Your task to perform on an android device: Is it going to rain today? Image 0: 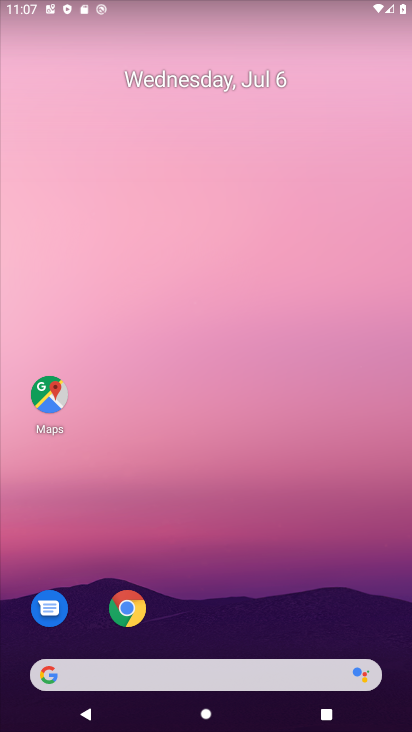
Step 0: drag from (234, 644) to (81, 99)
Your task to perform on an android device: Is it going to rain today? Image 1: 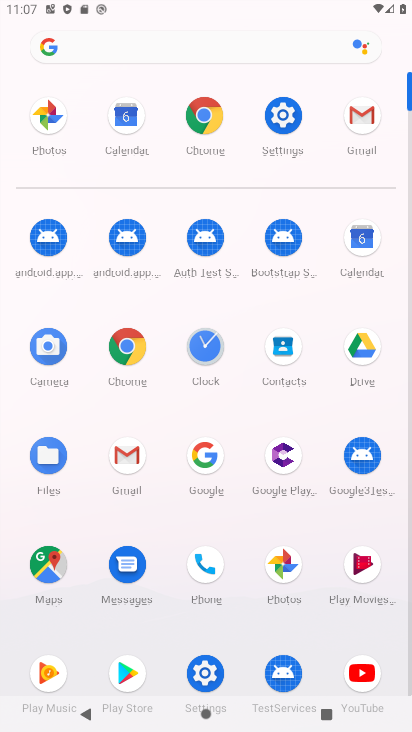
Step 1: click (200, 462)
Your task to perform on an android device: Is it going to rain today? Image 2: 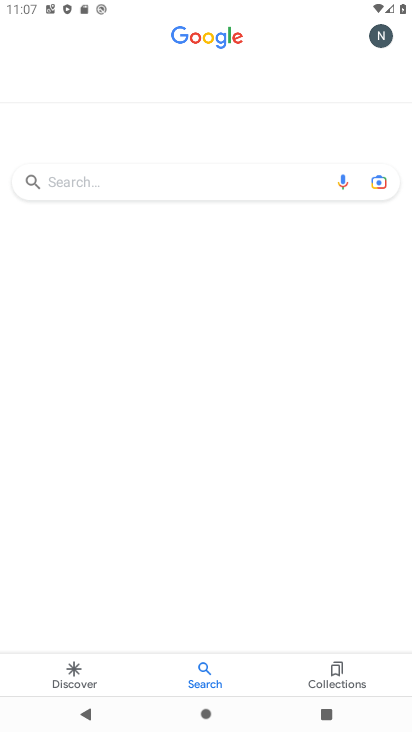
Step 2: click (100, 198)
Your task to perform on an android device: Is it going to rain today? Image 3: 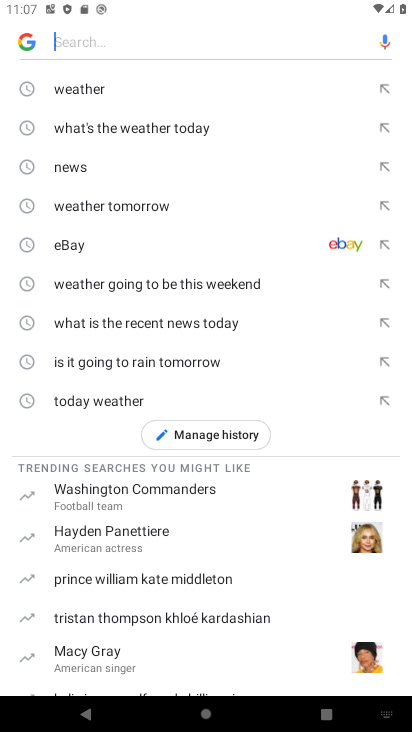
Step 3: click (80, 98)
Your task to perform on an android device: Is it going to rain today? Image 4: 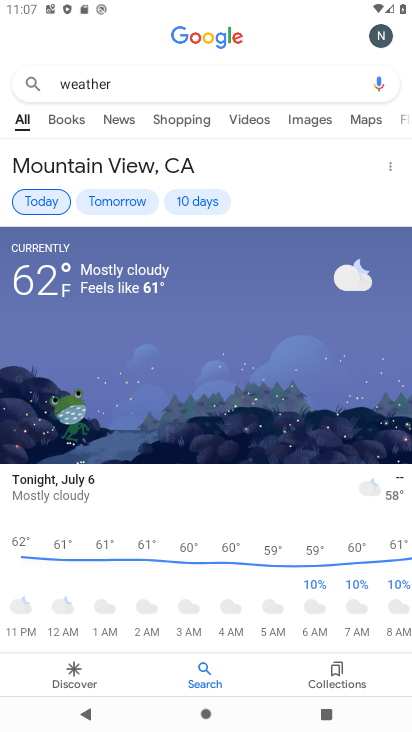
Step 4: click (44, 187)
Your task to perform on an android device: Is it going to rain today? Image 5: 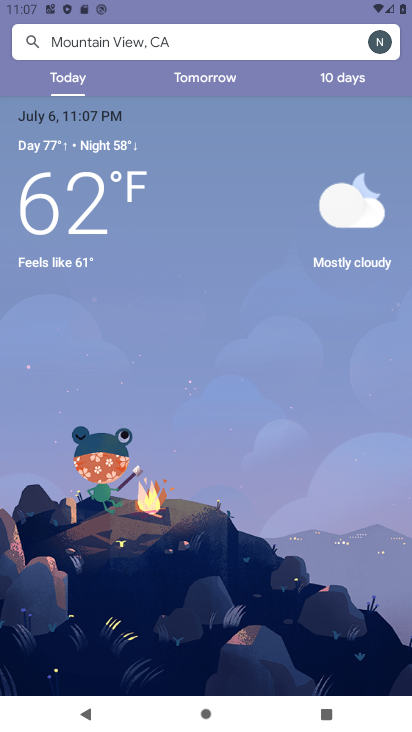
Step 5: task complete